Your task to perform on an android device: Open calendar and show me the third week of next month Image 0: 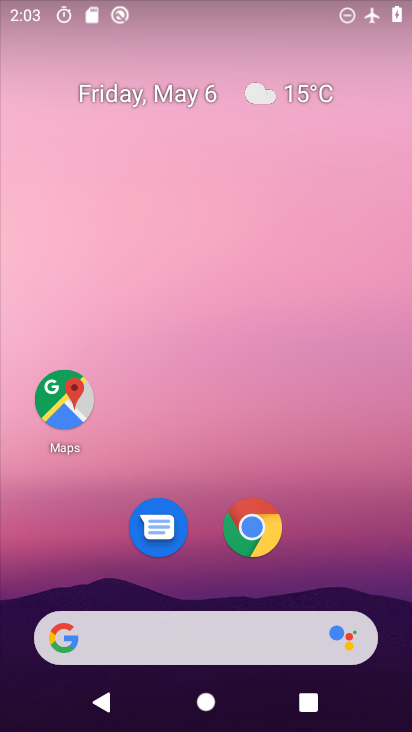
Step 0: drag from (241, 350) to (110, 74)
Your task to perform on an android device: Open calendar and show me the third week of next month Image 1: 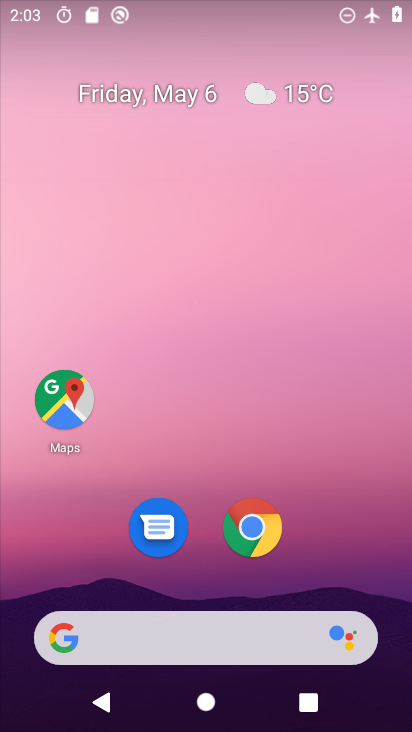
Step 1: drag from (200, 454) to (131, 71)
Your task to perform on an android device: Open calendar and show me the third week of next month Image 2: 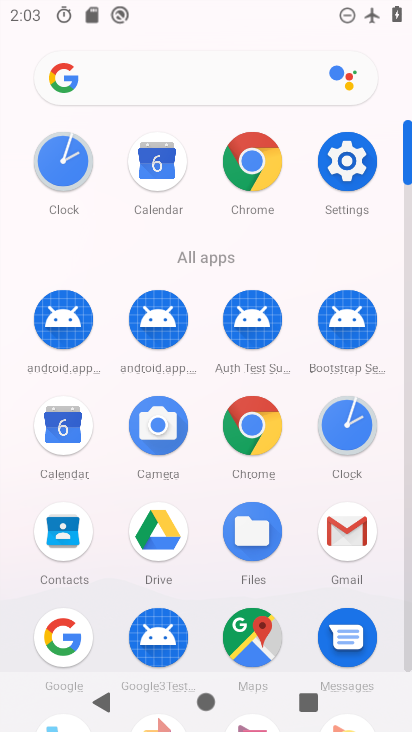
Step 2: click (165, 189)
Your task to perform on an android device: Open calendar and show me the third week of next month Image 3: 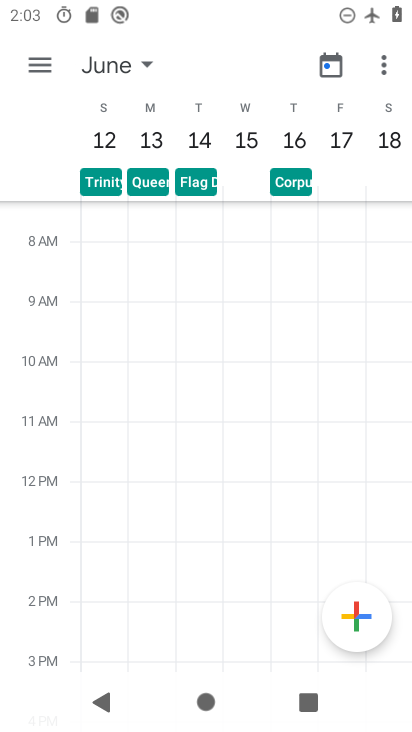
Step 3: task complete